Your task to perform on an android device: Open Maps and search for coffee Image 0: 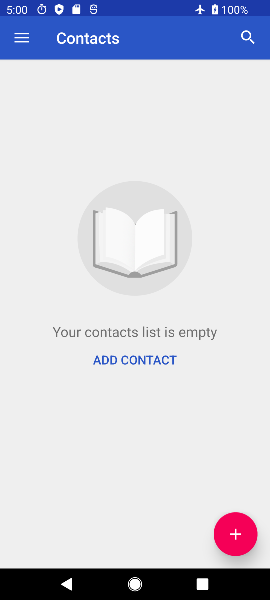
Step 0: press back button
Your task to perform on an android device: Open Maps and search for coffee Image 1: 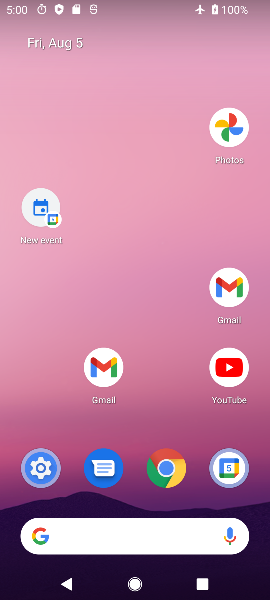
Step 1: drag from (143, 392) to (106, 4)
Your task to perform on an android device: Open Maps and search for coffee Image 2: 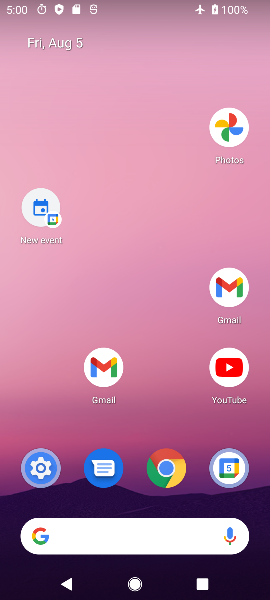
Step 2: drag from (163, 335) to (142, 73)
Your task to perform on an android device: Open Maps and search for coffee Image 3: 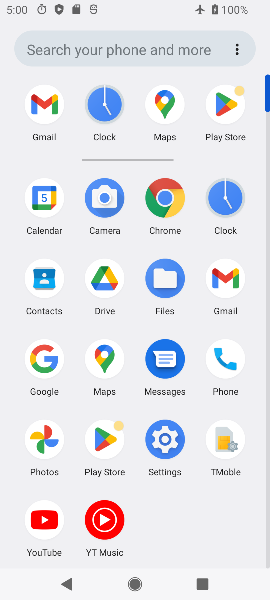
Step 3: click (98, 351)
Your task to perform on an android device: Open Maps and search for coffee Image 4: 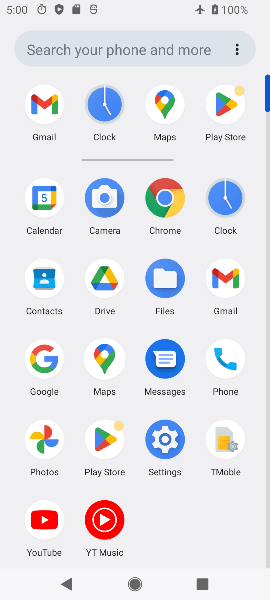
Step 4: click (98, 352)
Your task to perform on an android device: Open Maps and search for coffee Image 5: 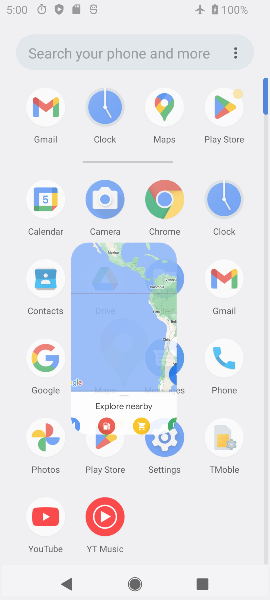
Step 5: click (98, 352)
Your task to perform on an android device: Open Maps and search for coffee Image 6: 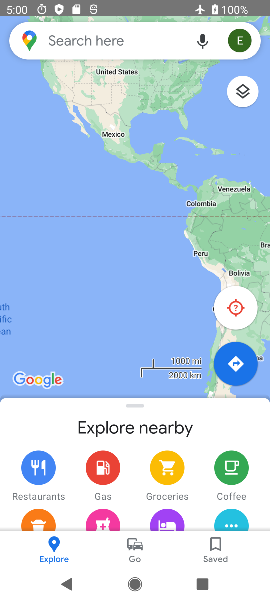
Step 6: click (82, 37)
Your task to perform on an android device: Open Maps and search for coffee Image 7: 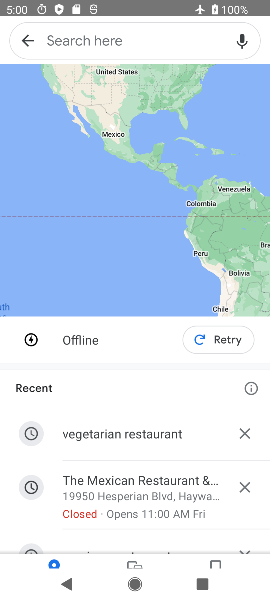
Step 7: click (55, 40)
Your task to perform on an android device: Open Maps and search for coffee Image 8: 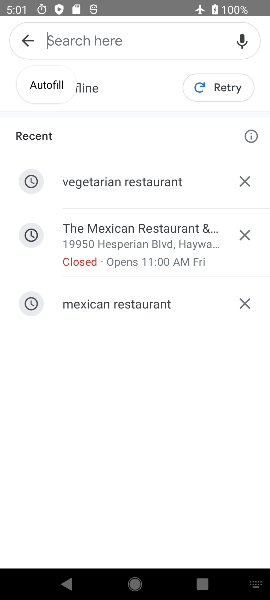
Step 8: type "coffee"
Your task to perform on an android device: Open Maps and search for coffee Image 9: 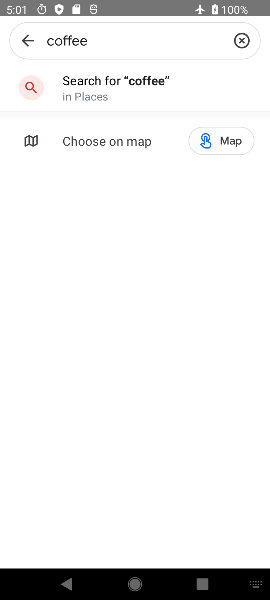
Step 9: click (136, 87)
Your task to perform on an android device: Open Maps and search for coffee Image 10: 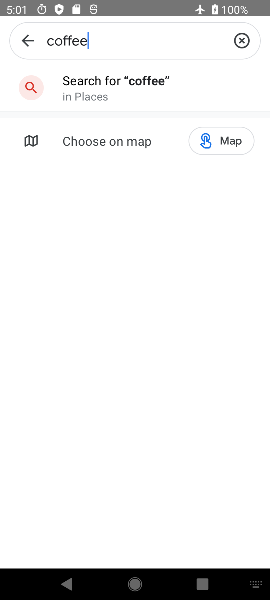
Step 10: click (136, 87)
Your task to perform on an android device: Open Maps and search for coffee Image 11: 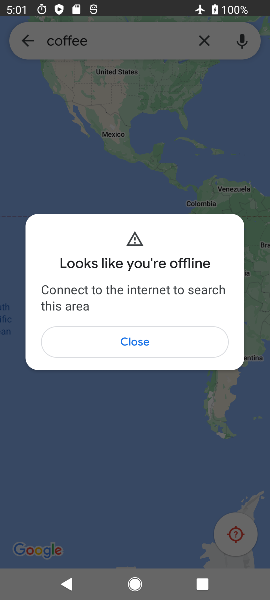
Step 11: click (137, 86)
Your task to perform on an android device: Open Maps and search for coffee Image 12: 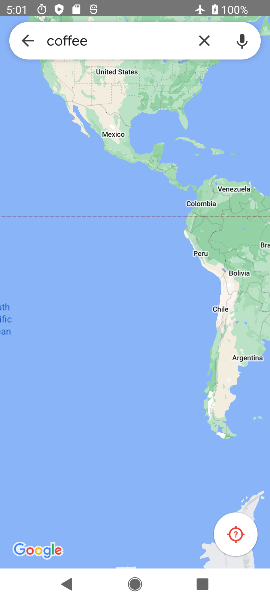
Step 12: task complete